Your task to perform on an android device: turn on notifications settings in the gmail app Image 0: 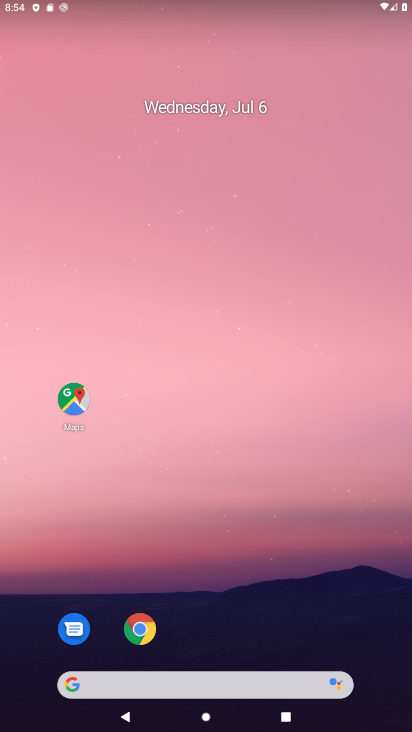
Step 0: drag from (236, 650) to (202, 187)
Your task to perform on an android device: turn on notifications settings in the gmail app Image 1: 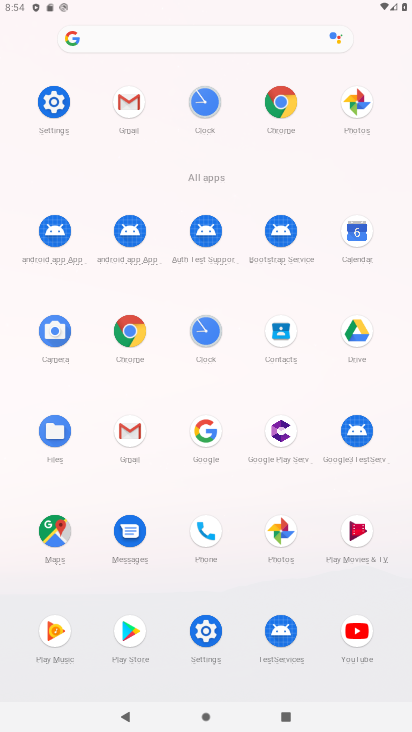
Step 1: click (127, 433)
Your task to perform on an android device: turn on notifications settings in the gmail app Image 2: 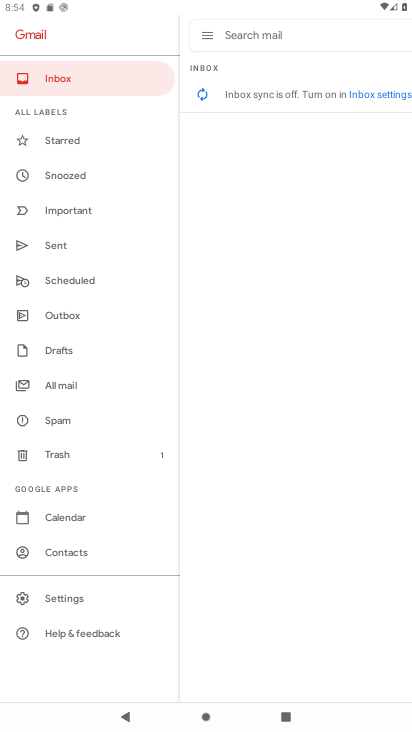
Step 2: click (62, 590)
Your task to perform on an android device: turn on notifications settings in the gmail app Image 3: 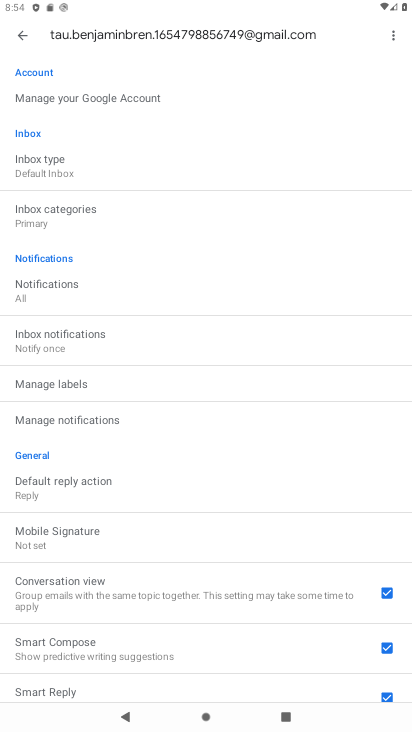
Step 3: click (54, 295)
Your task to perform on an android device: turn on notifications settings in the gmail app Image 4: 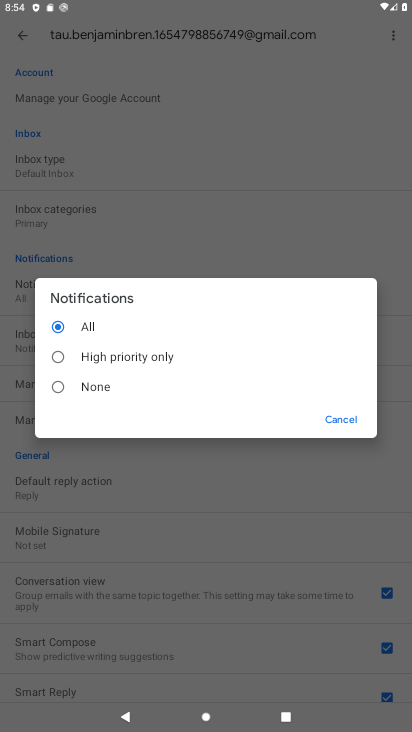
Step 4: task complete